Your task to perform on an android device: Show me the alarms in the clock app Image 0: 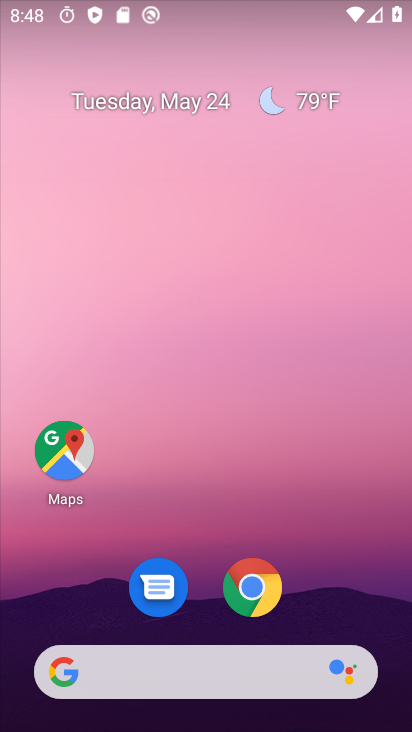
Step 0: click (361, 182)
Your task to perform on an android device: Show me the alarms in the clock app Image 1: 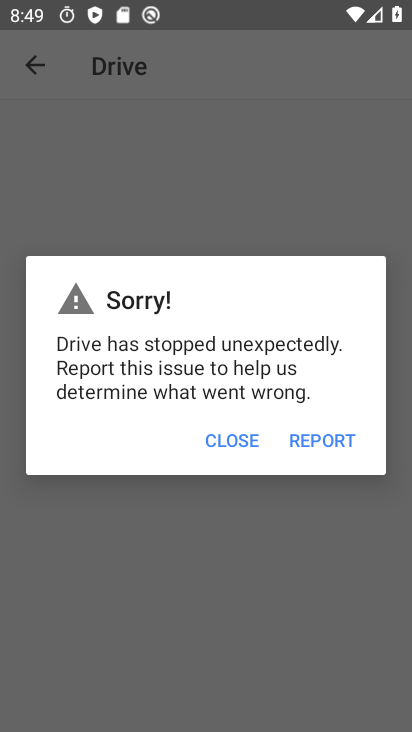
Step 1: drag from (322, 574) to (360, 495)
Your task to perform on an android device: Show me the alarms in the clock app Image 2: 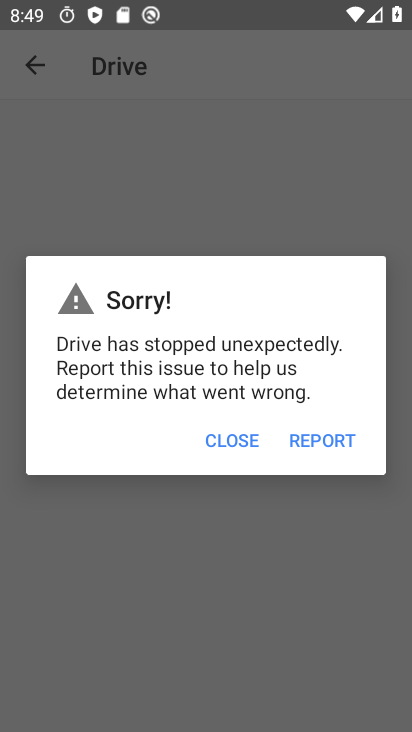
Step 2: press home button
Your task to perform on an android device: Show me the alarms in the clock app Image 3: 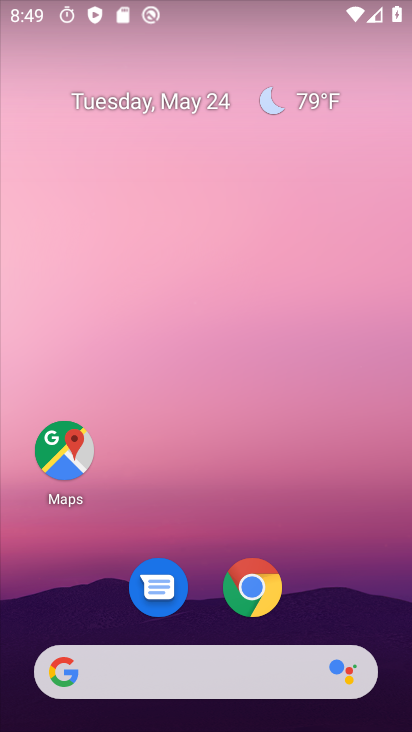
Step 3: drag from (317, 580) to (242, 163)
Your task to perform on an android device: Show me the alarms in the clock app Image 4: 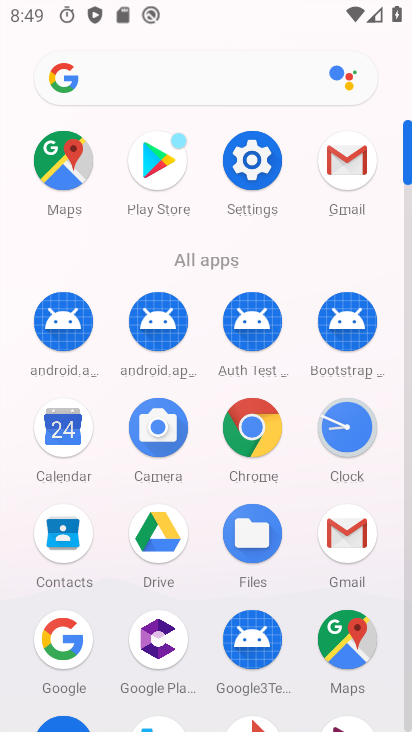
Step 4: click (347, 428)
Your task to perform on an android device: Show me the alarms in the clock app Image 5: 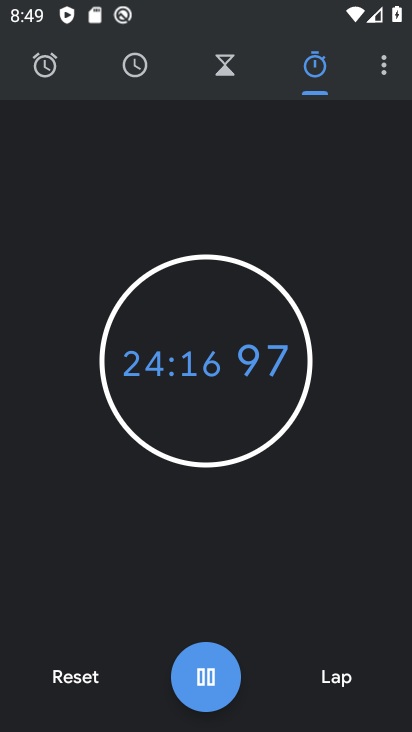
Step 5: click (46, 67)
Your task to perform on an android device: Show me the alarms in the clock app Image 6: 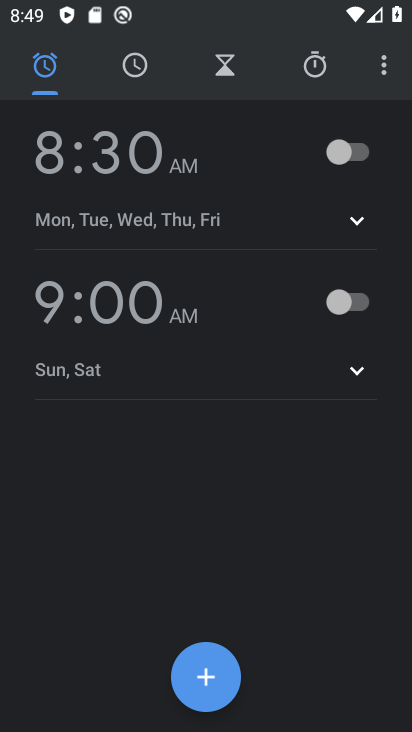
Step 6: task complete